Your task to perform on an android device: Add razer blade to the cart on newegg.com, then select checkout. Image 0: 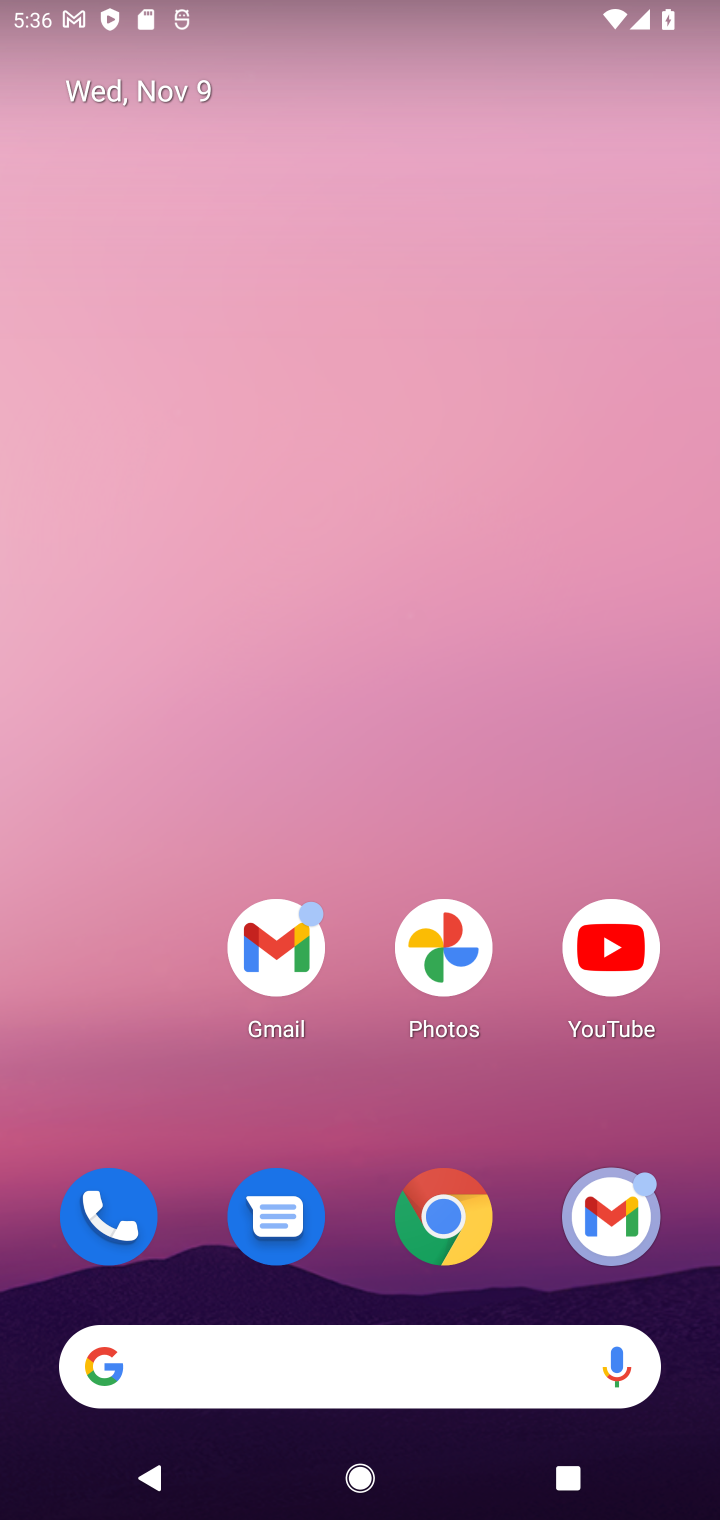
Step 0: drag from (366, 1123) to (430, 55)
Your task to perform on an android device: Add razer blade to the cart on newegg.com, then select checkout. Image 1: 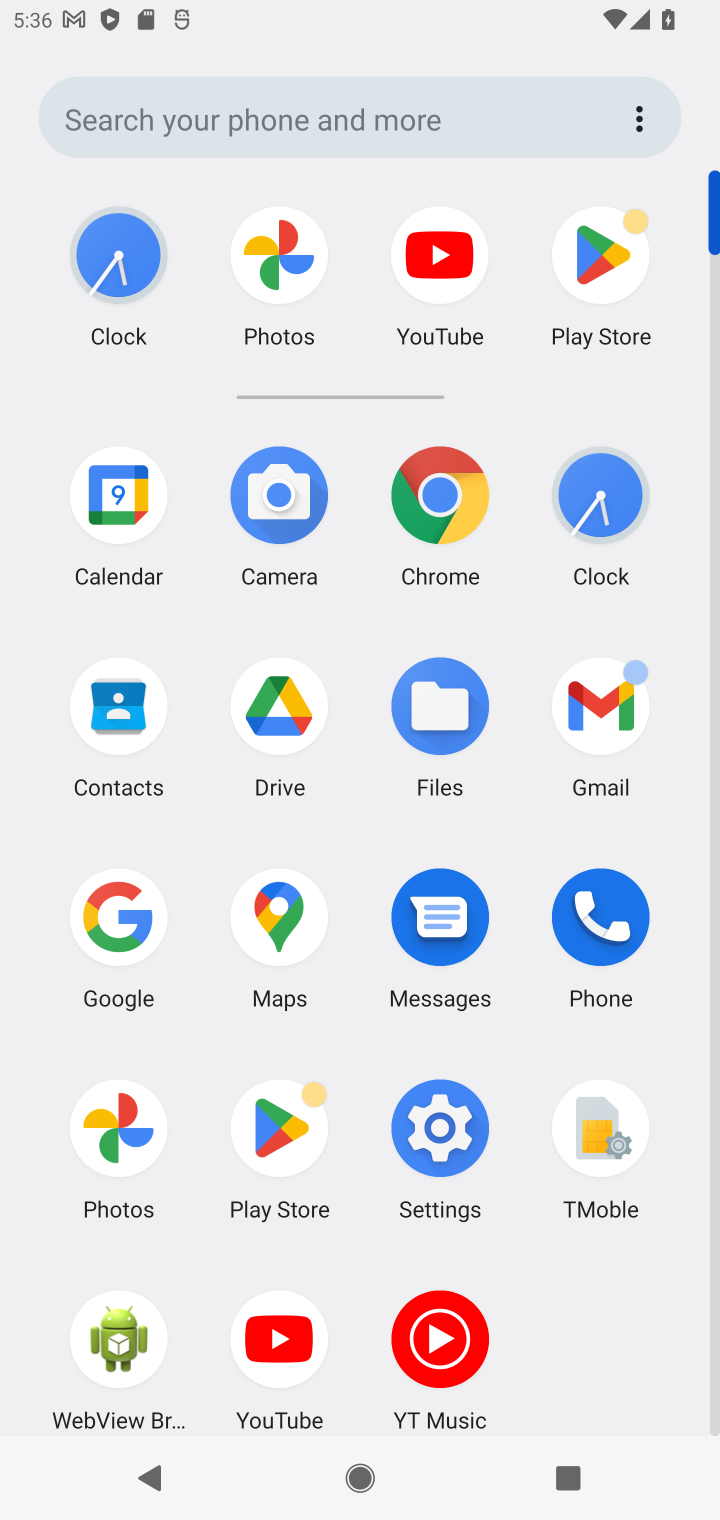
Step 1: click (431, 500)
Your task to perform on an android device: Add razer blade to the cart on newegg.com, then select checkout. Image 2: 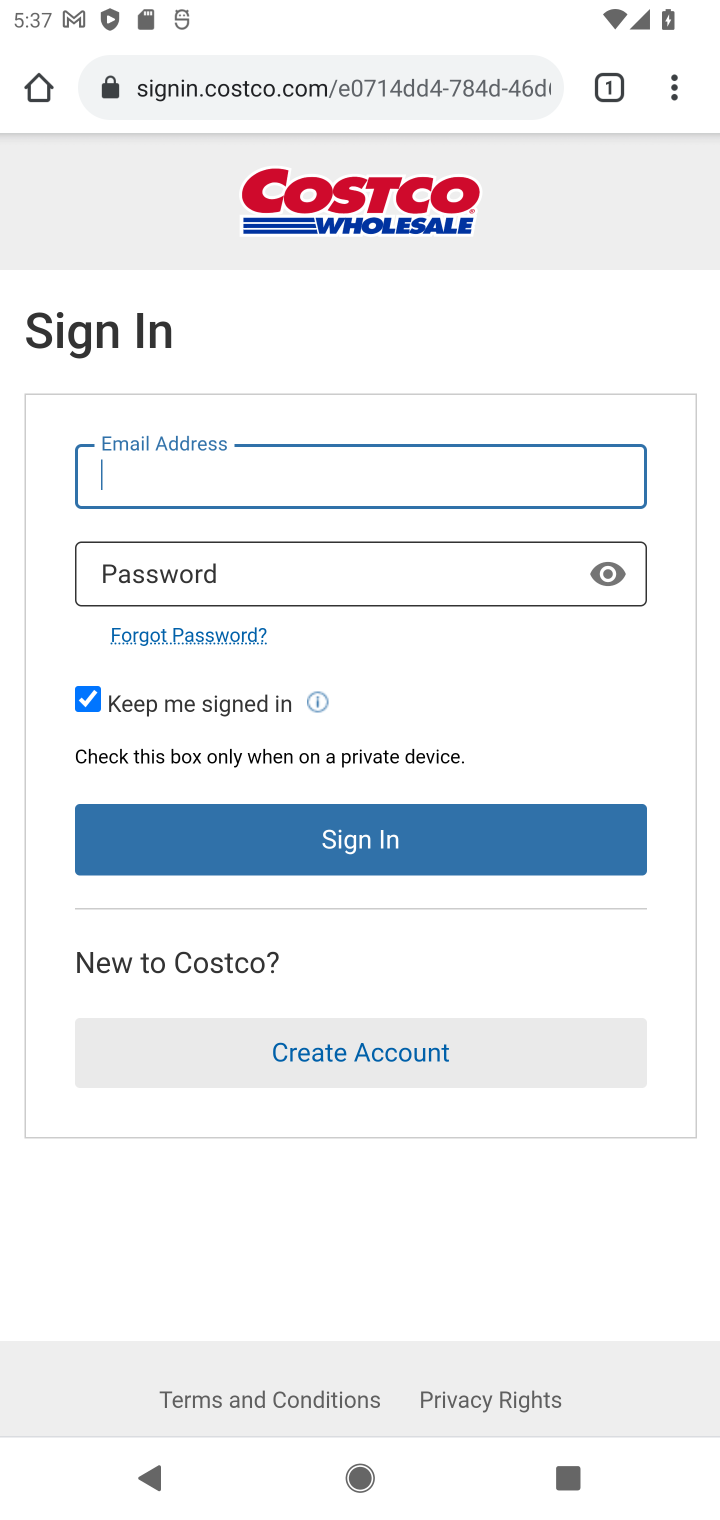
Step 2: click (420, 82)
Your task to perform on an android device: Add razer blade to the cart on newegg.com, then select checkout. Image 3: 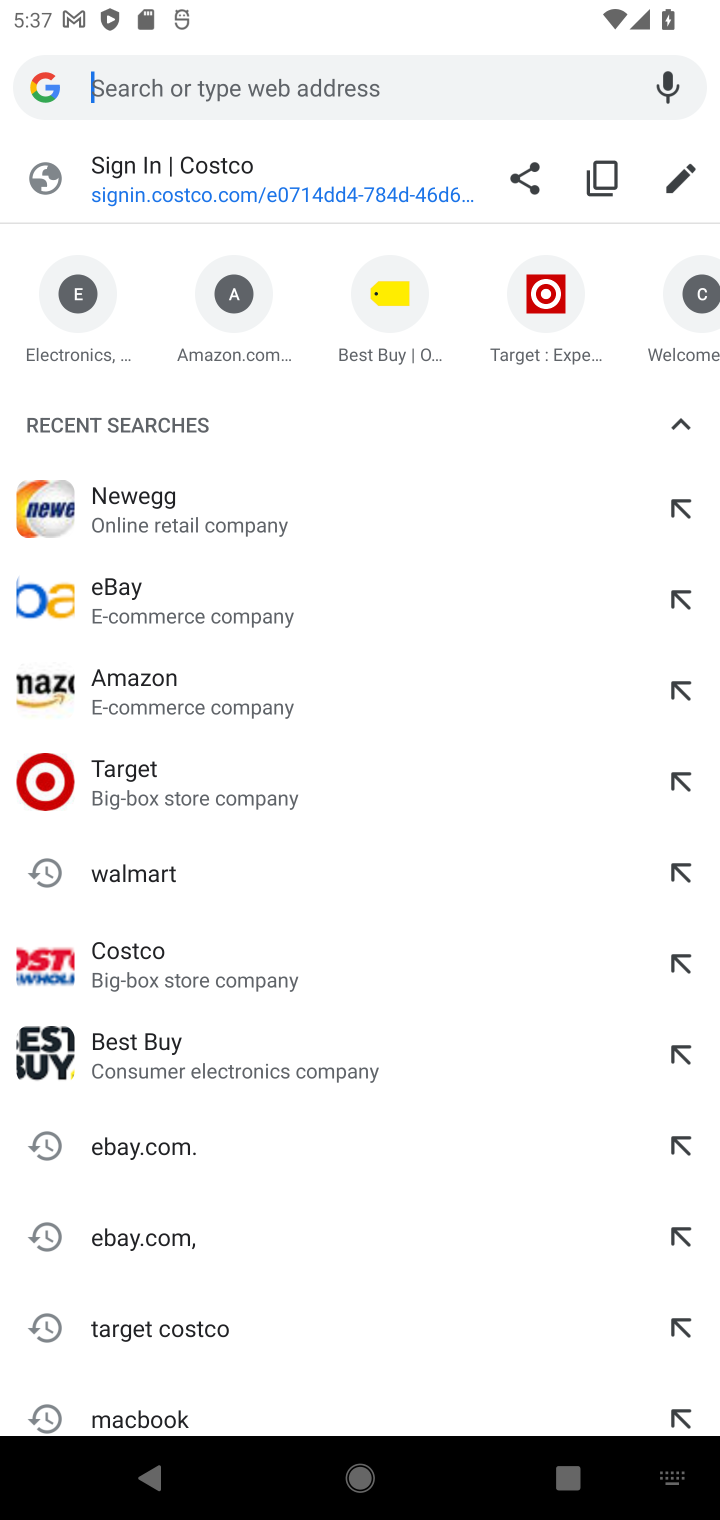
Step 3: type "newegg.com"
Your task to perform on an android device: Add razer blade to the cart on newegg.com, then select checkout. Image 4: 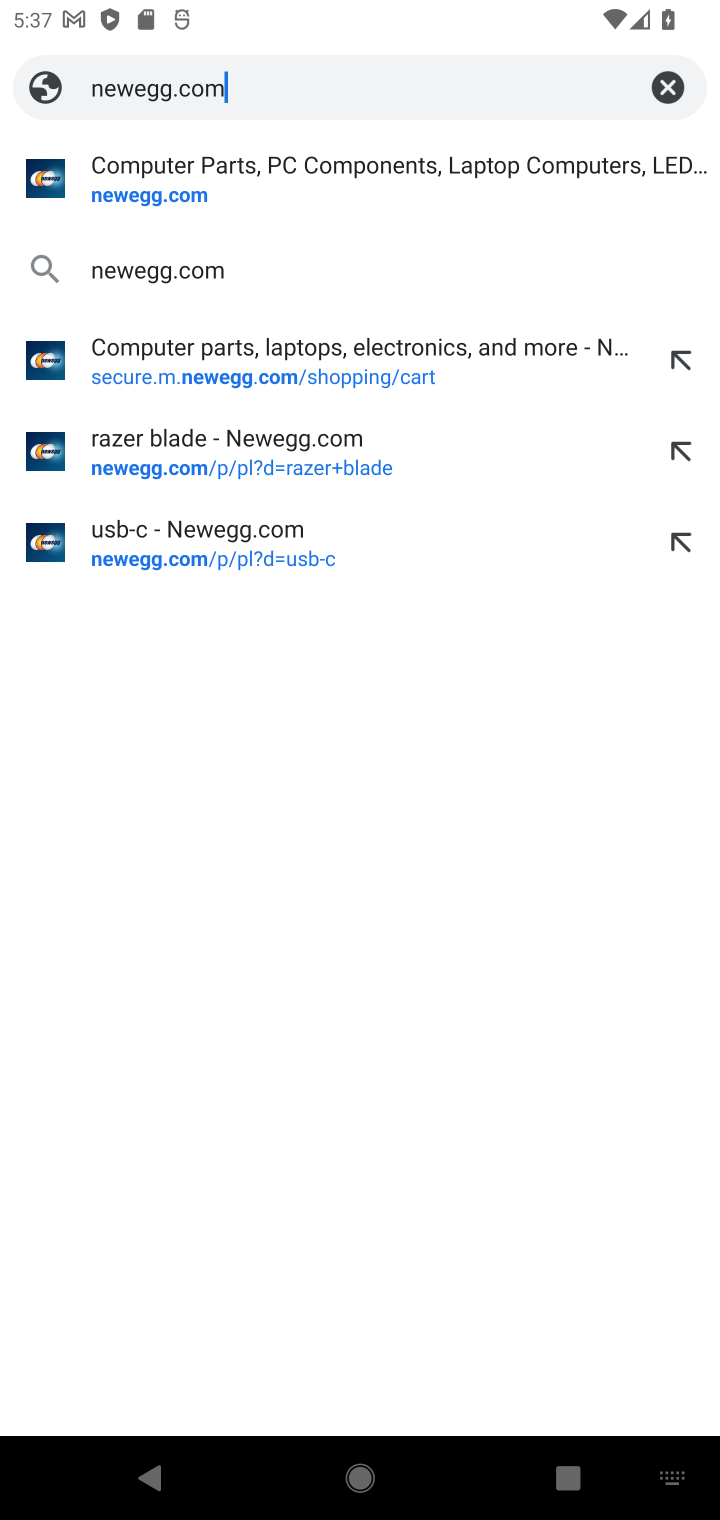
Step 4: press enter
Your task to perform on an android device: Add razer blade to the cart on newegg.com, then select checkout. Image 5: 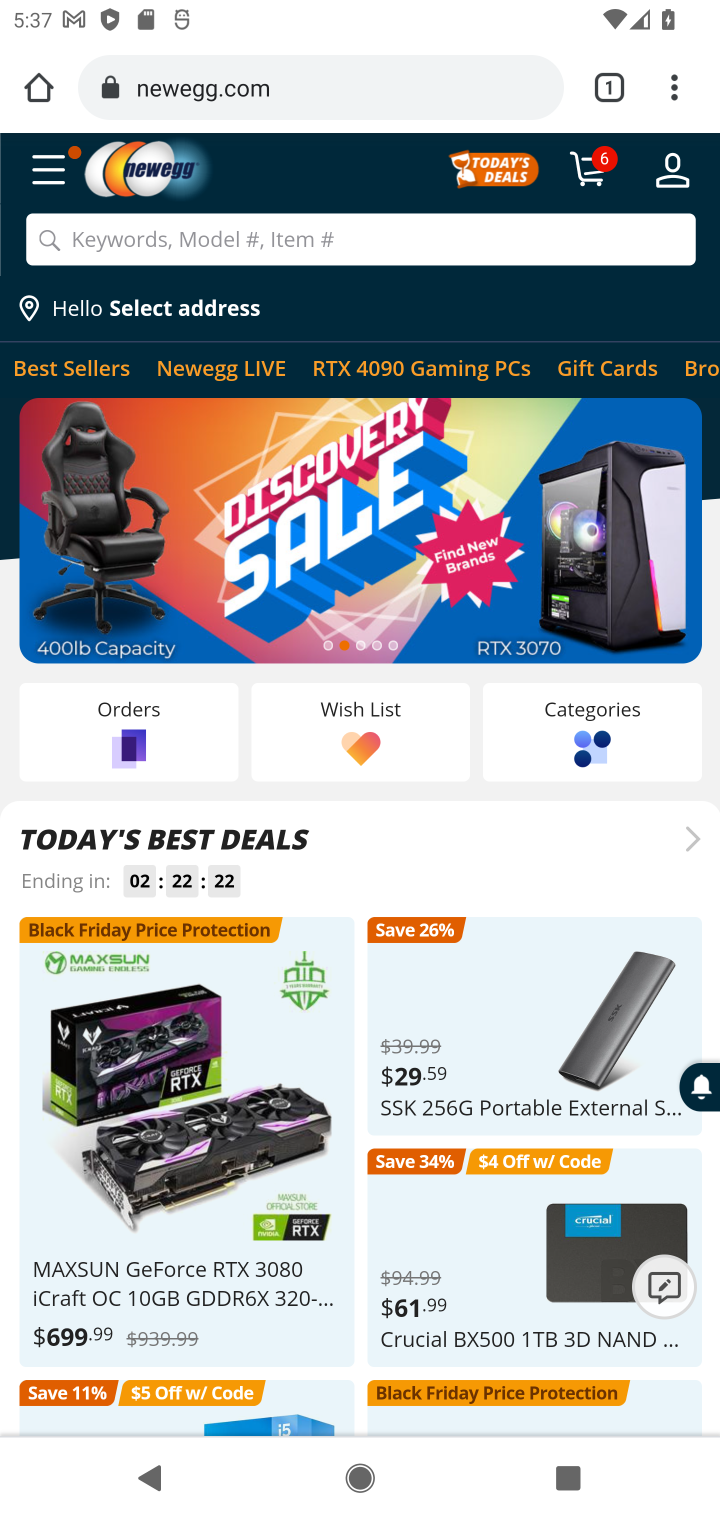
Step 5: click (248, 249)
Your task to perform on an android device: Add razer blade to the cart on newegg.com, then select checkout. Image 6: 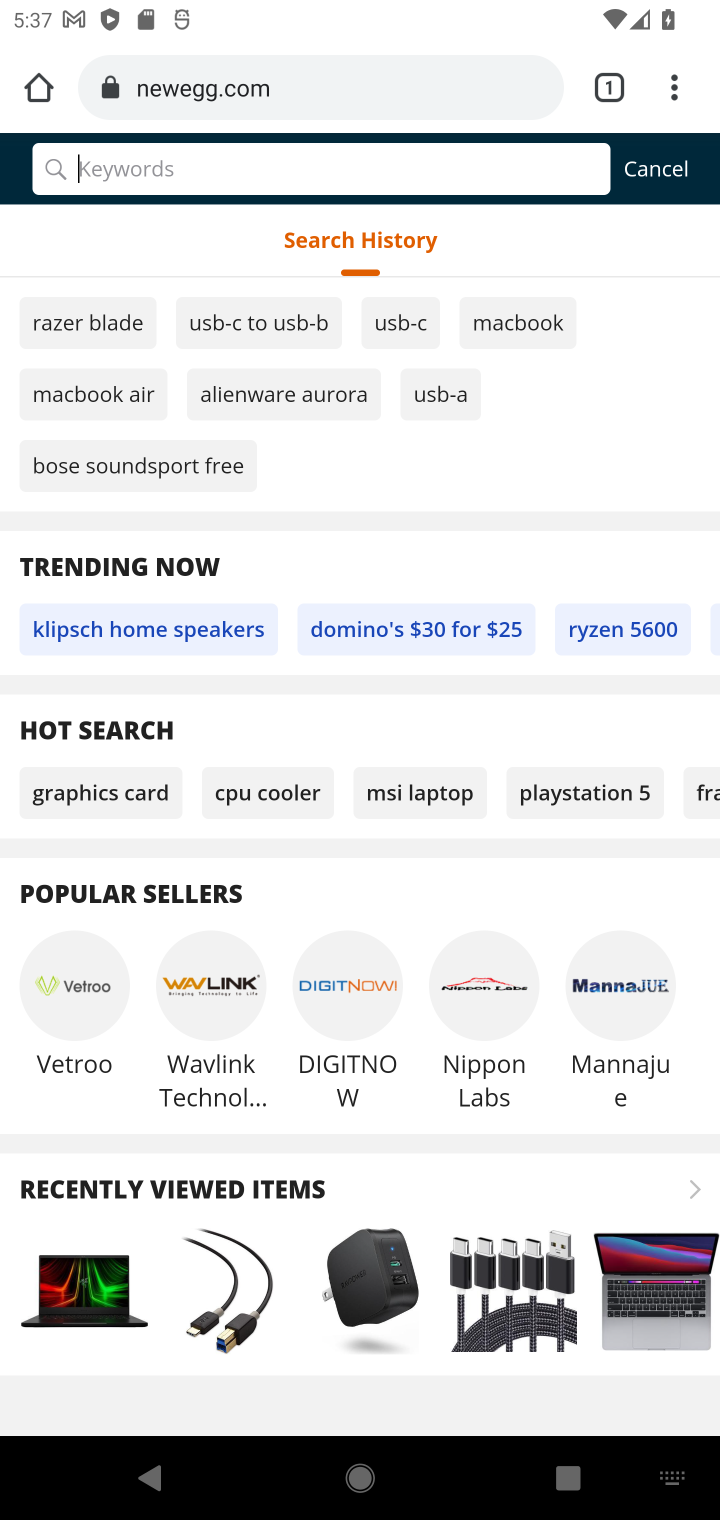
Step 6: type "razer blade"
Your task to perform on an android device: Add razer blade to the cart on newegg.com, then select checkout. Image 7: 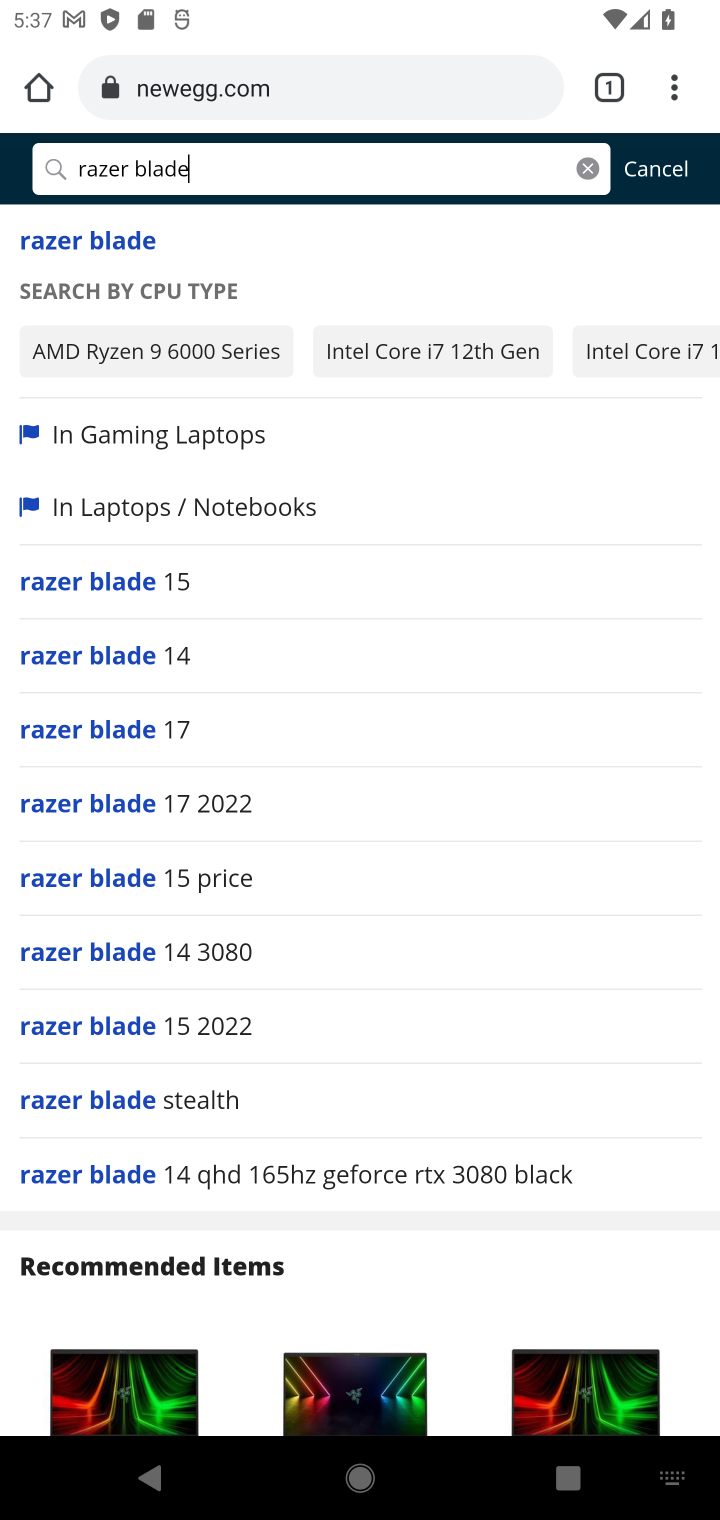
Step 7: press enter
Your task to perform on an android device: Add razer blade to the cart on newegg.com, then select checkout. Image 8: 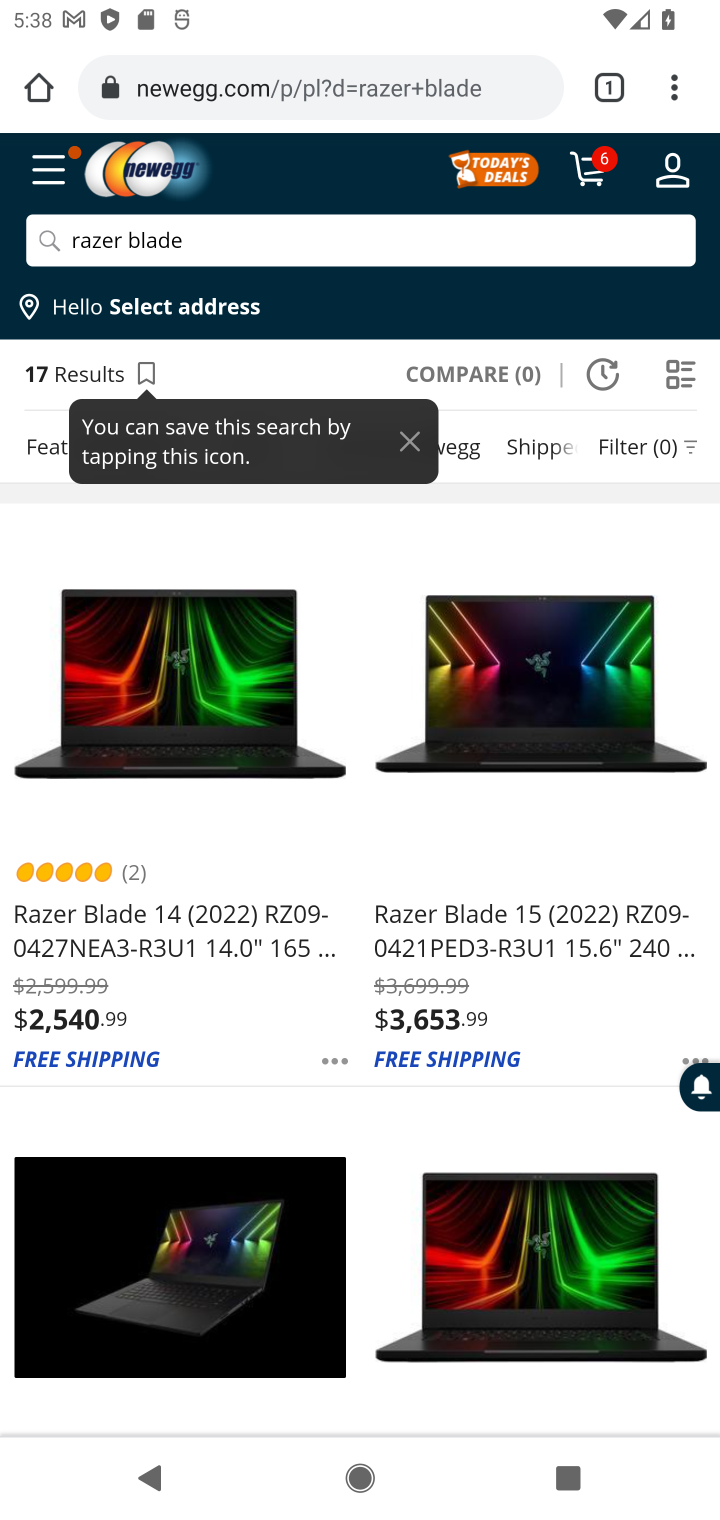
Step 8: click (224, 917)
Your task to perform on an android device: Add razer blade to the cart on newegg.com, then select checkout. Image 9: 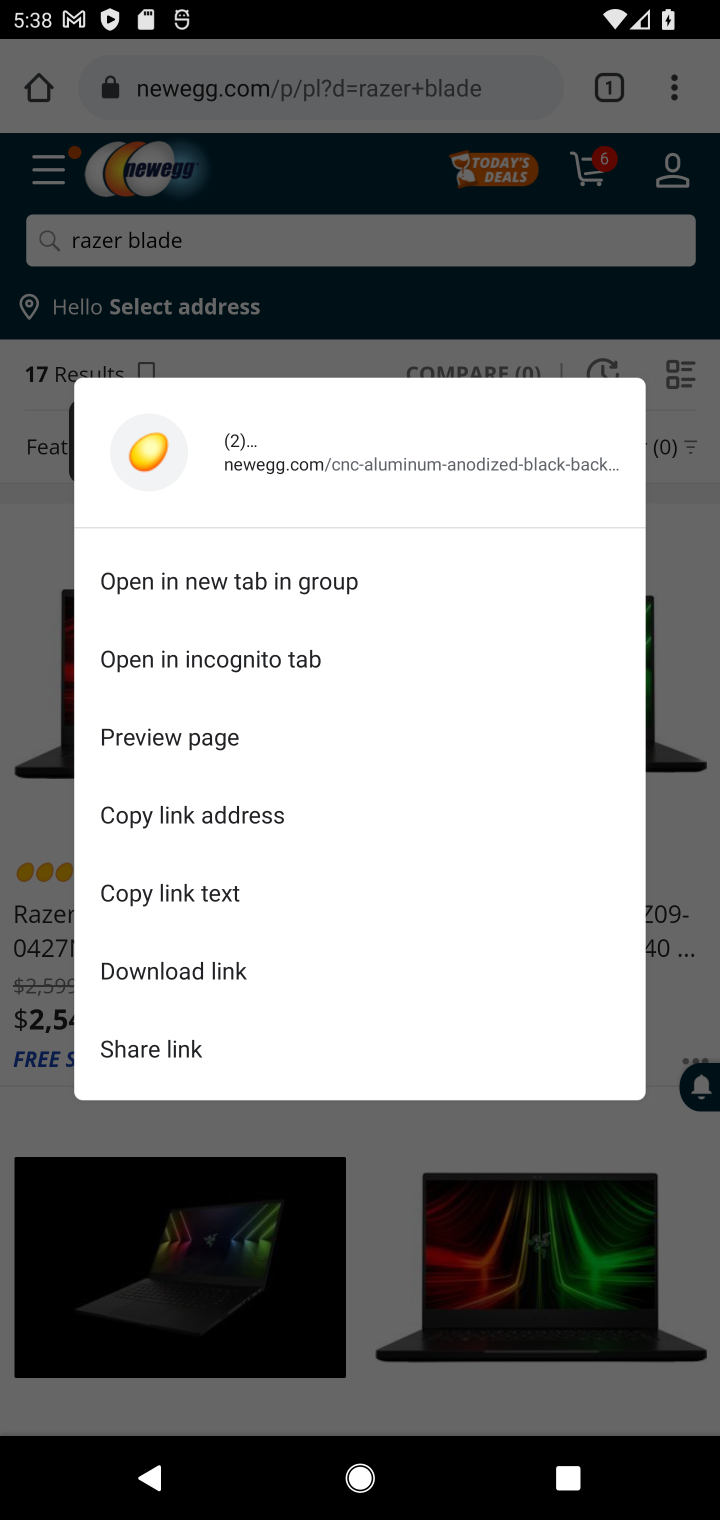
Step 9: click (11, 873)
Your task to perform on an android device: Add razer blade to the cart on newegg.com, then select checkout. Image 10: 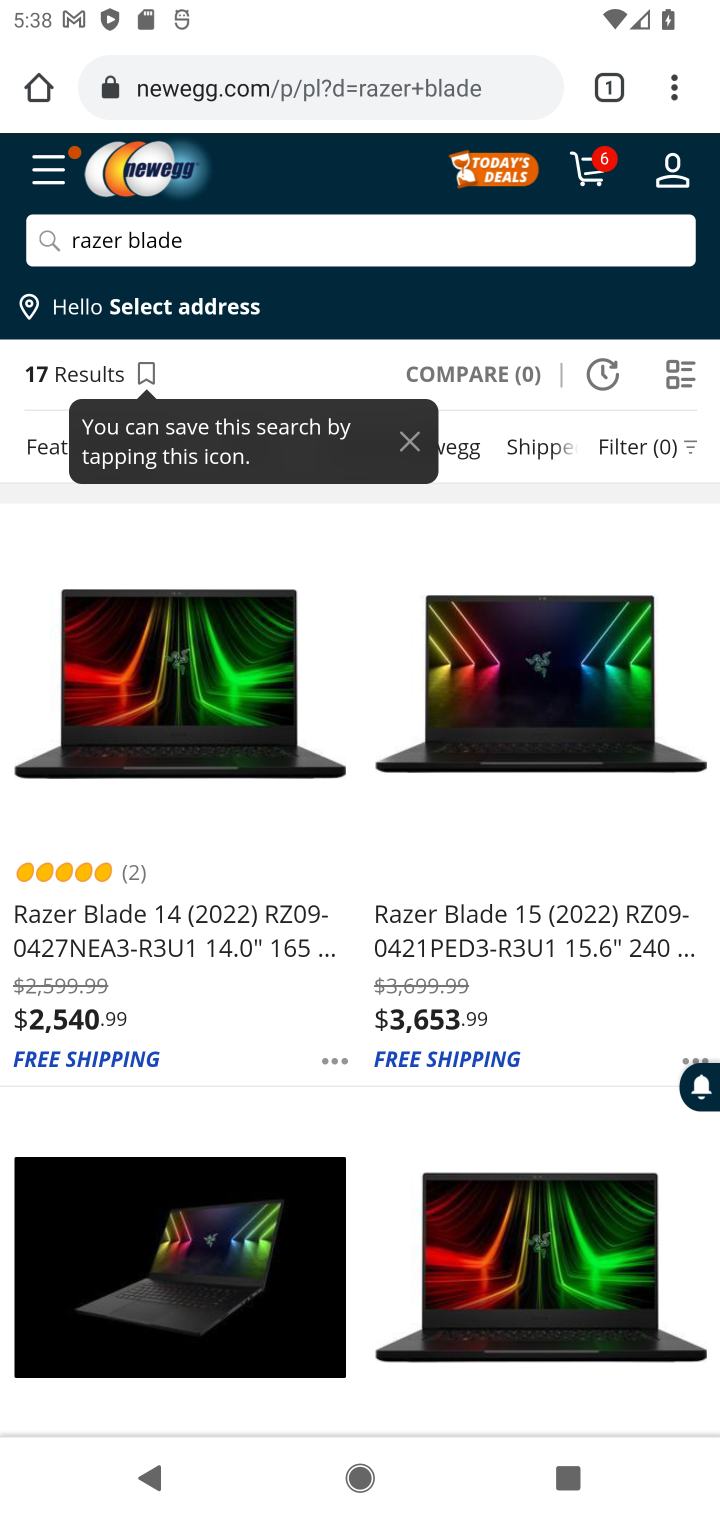
Step 10: click (95, 943)
Your task to perform on an android device: Add razer blade to the cart on newegg.com, then select checkout. Image 11: 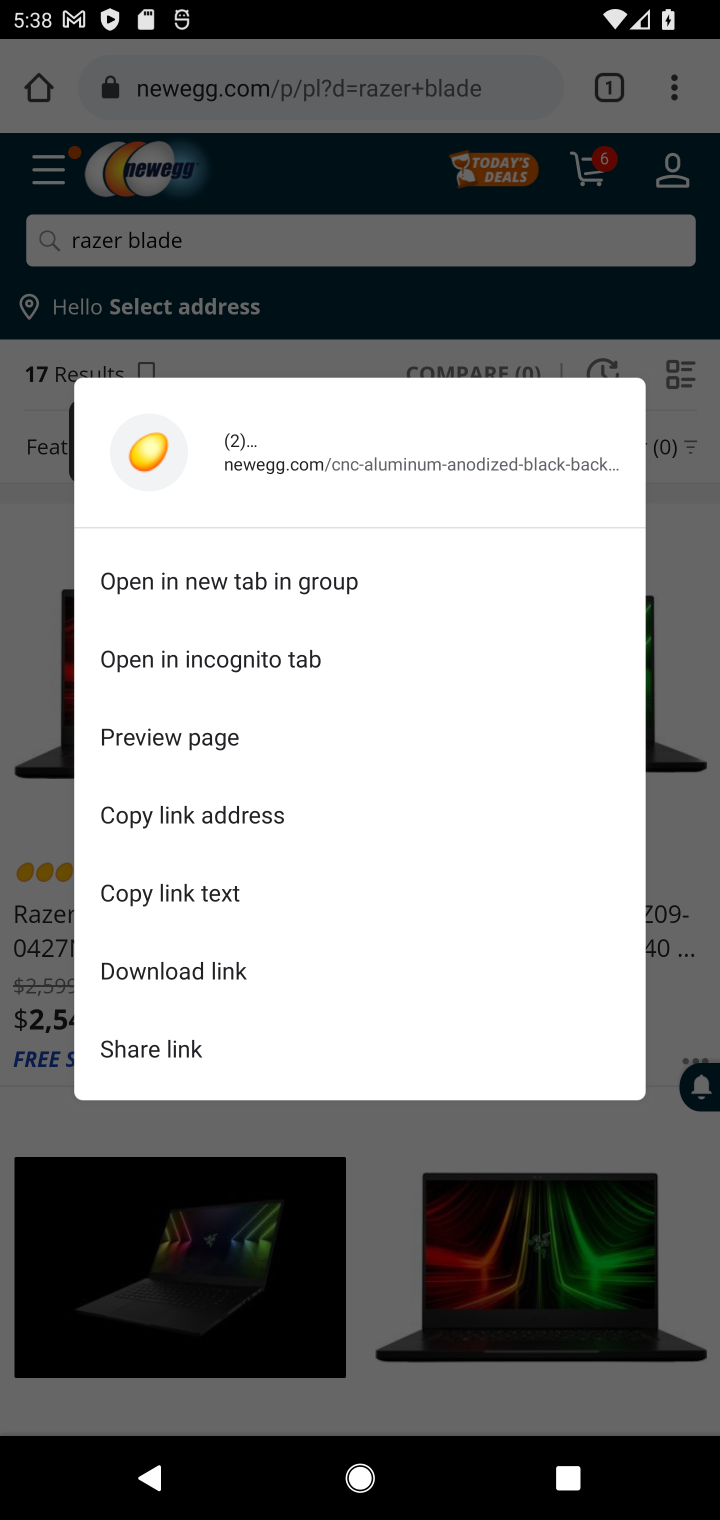
Step 11: click (27, 934)
Your task to perform on an android device: Add razer blade to the cart on newegg.com, then select checkout. Image 12: 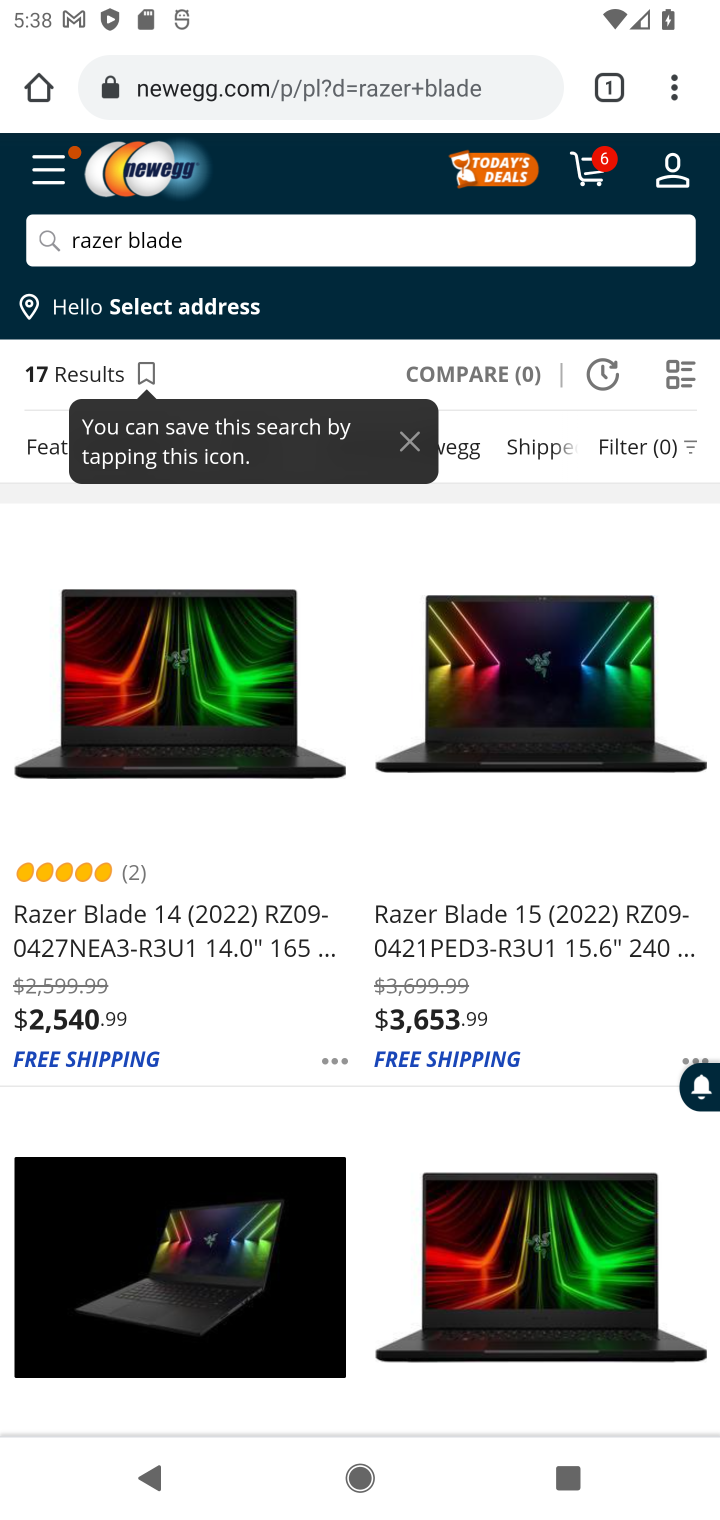
Step 12: click (132, 945)
Your task to perform on an android device: Add razer blade to the cart on newegg.com, then select checkout. Image 13: 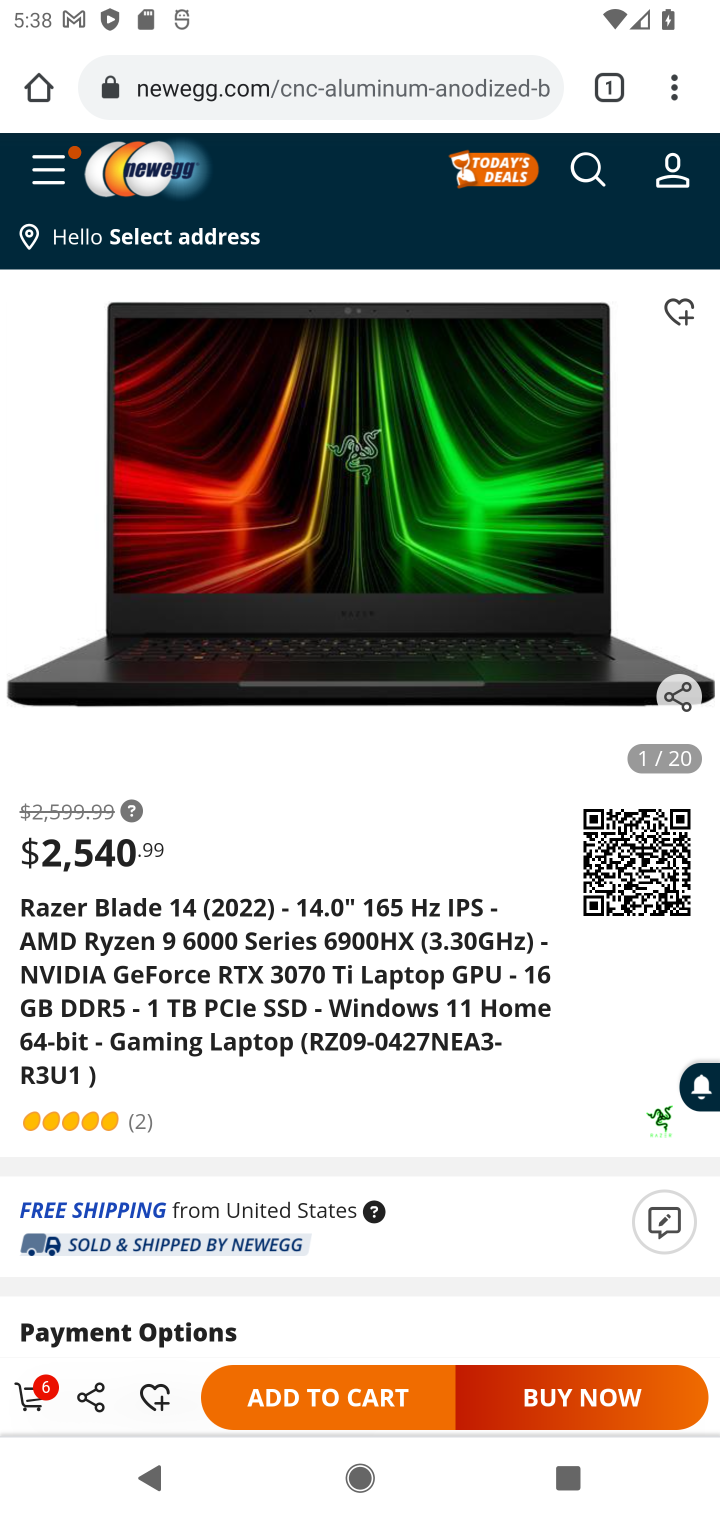
Step 13: click (350, 1406)
Your task to perform on an android device: Add razer blade to the cart on newegg.com, then select checkout. Image 14: 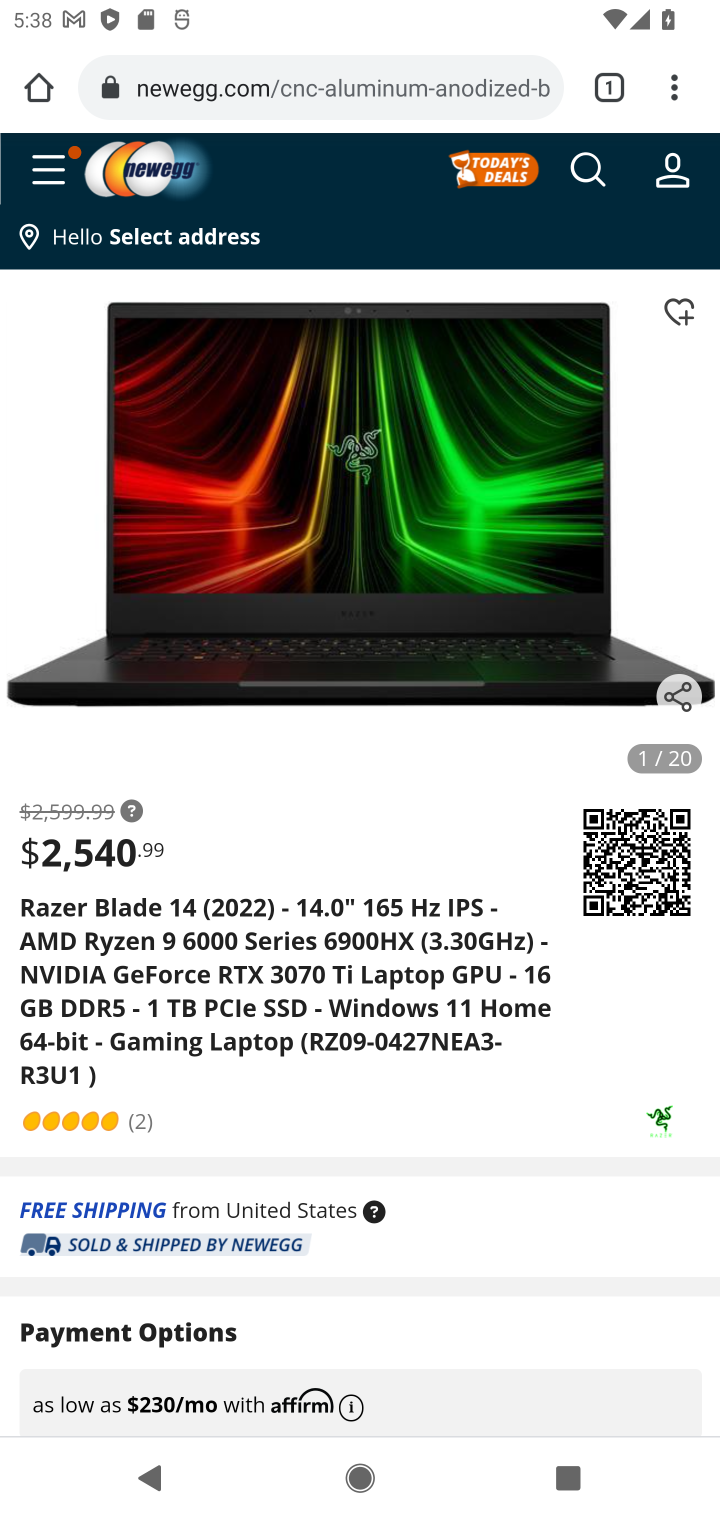
Step 14: drag from (505, 1309) to (405, 772)
Your task to perform on an android device: Add razer blade to the cart on newegg.com, then select checkout. Image 15: 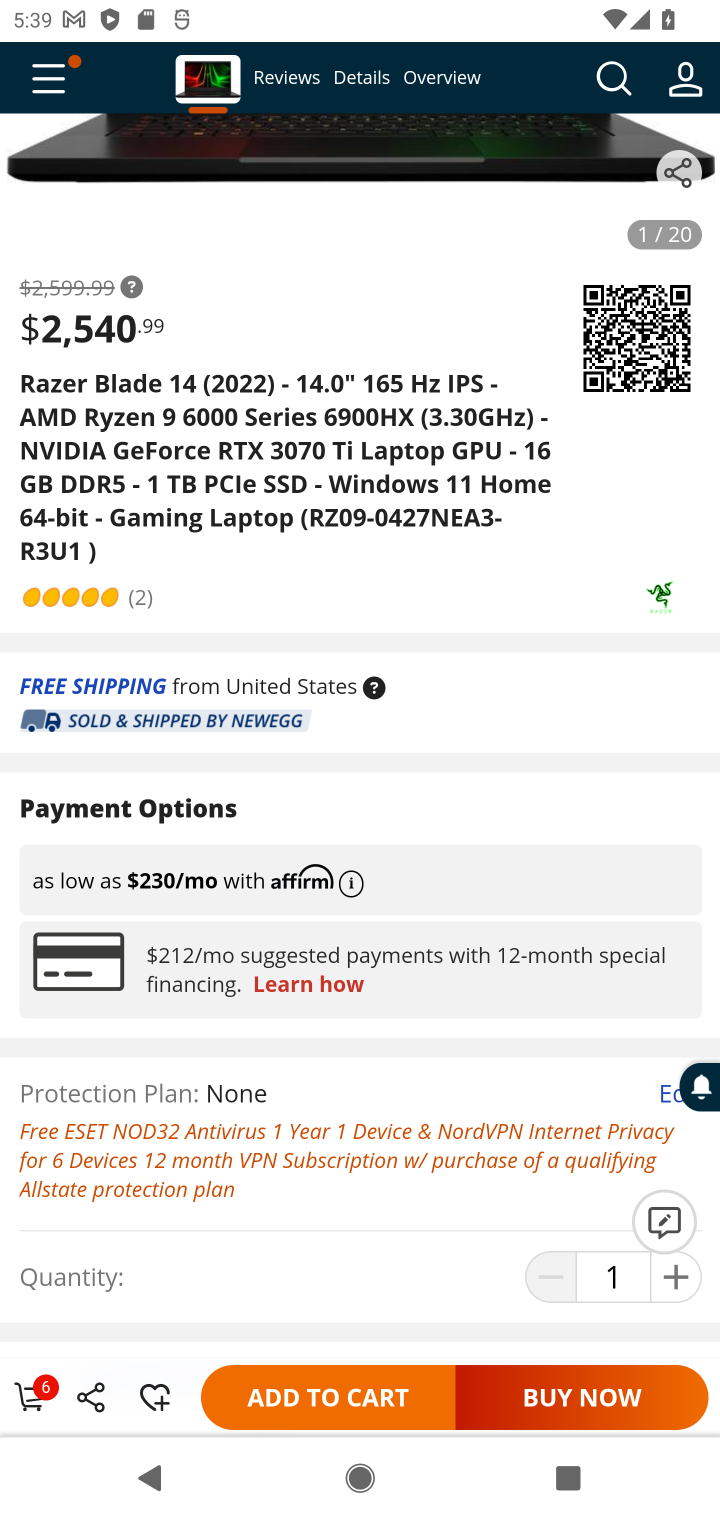
Step 15: click (346, 1403)
Your task to perform on an android device: Add razer blade to the cart on newegg.com, then select checkout. Image 16: 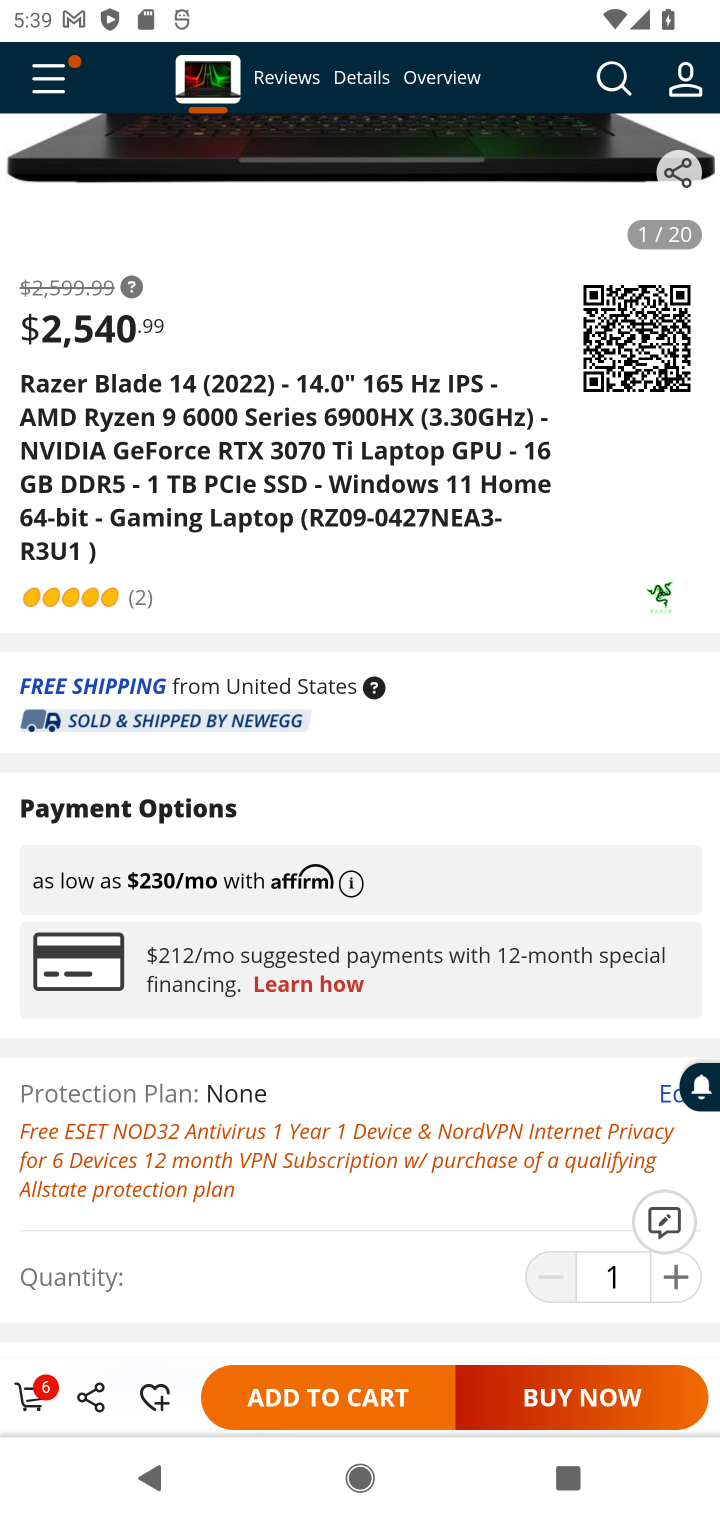
Step 16: click (274, 1398)
Your task to perform on an android device: Add razer blade to the cart on newegg.com, then select checkout. Image 17: 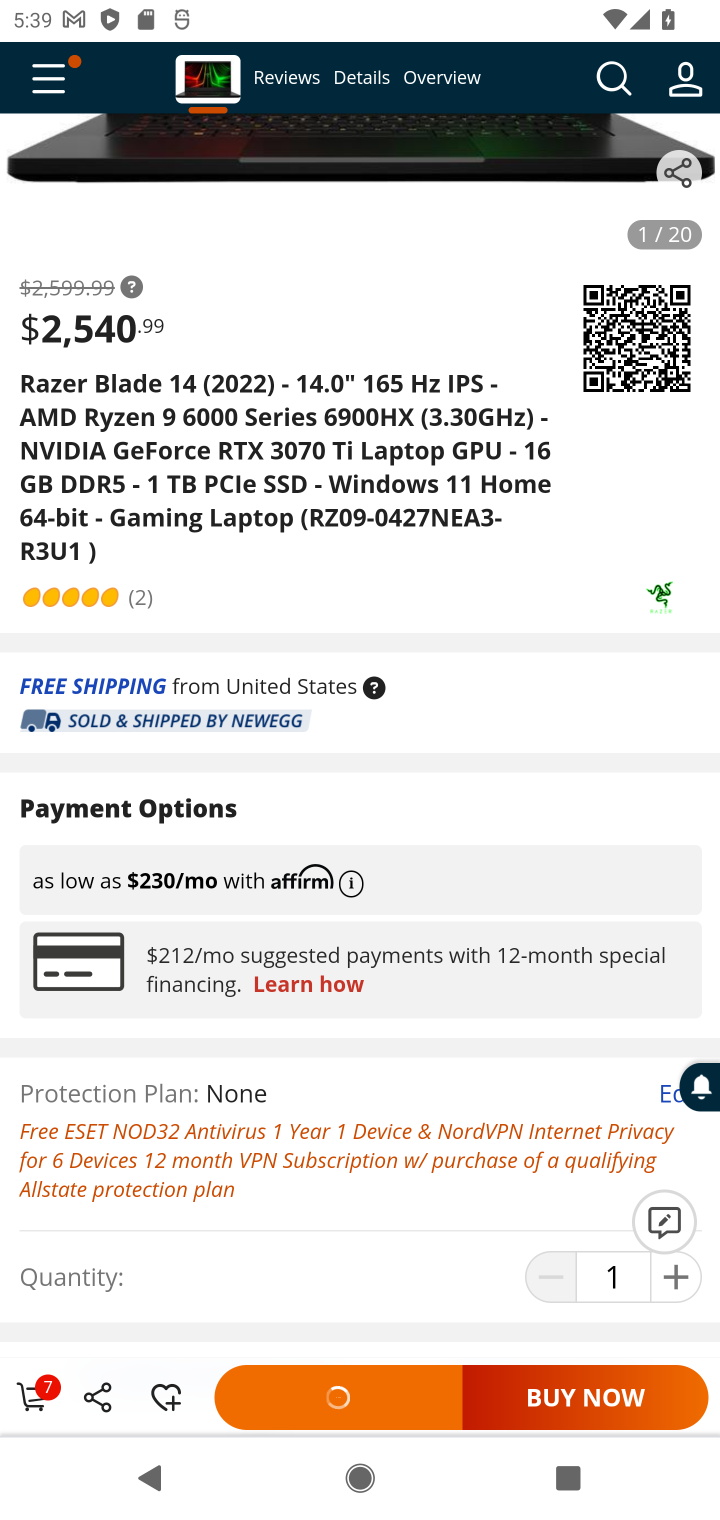
Step 17: click (334, 1388)
Your task to perform on an android device: Add razer blade to the cart on newegg.com, then select checkout. Image 18: 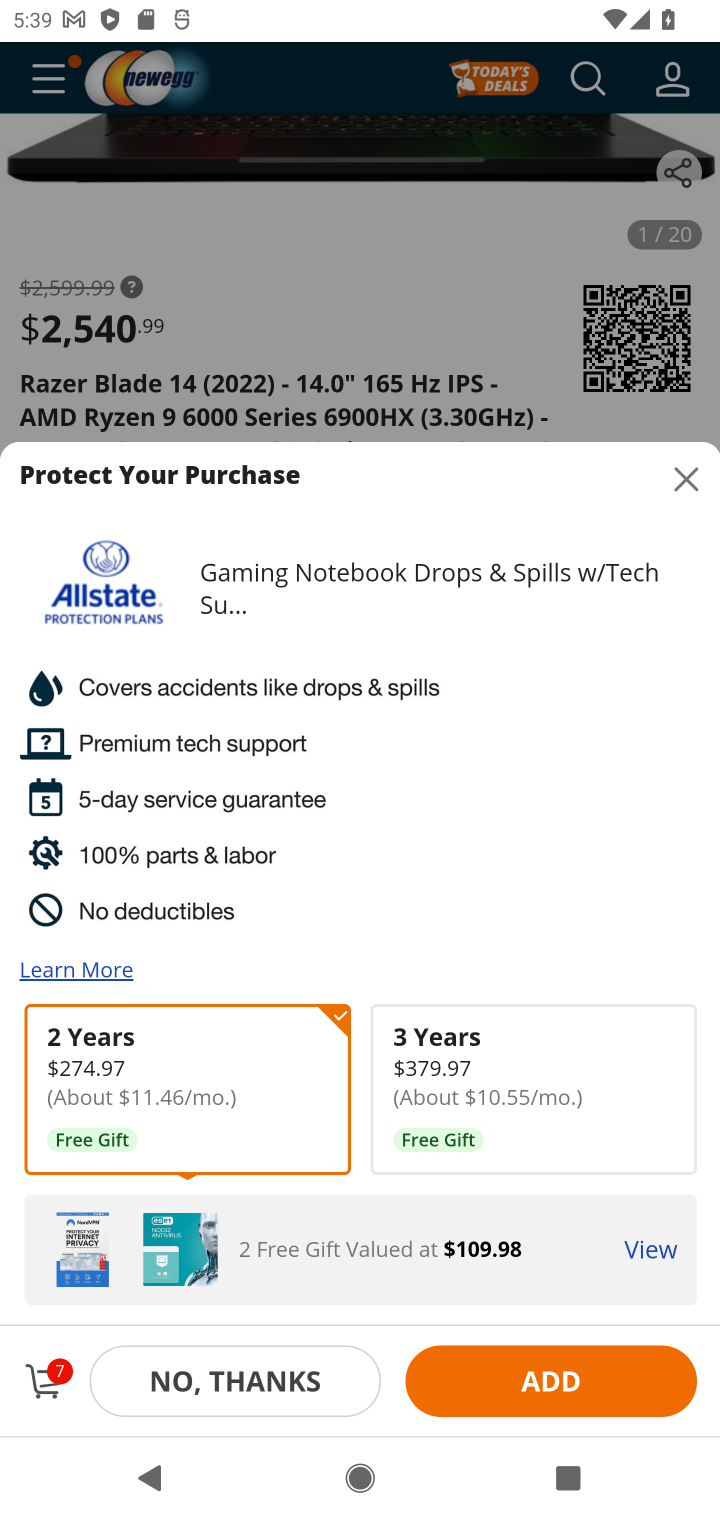
Step 18: click (42, 1390)
Your task to perform on an android device: Add razer blade to the cart on newegg.com, then select checkout. Image 19: 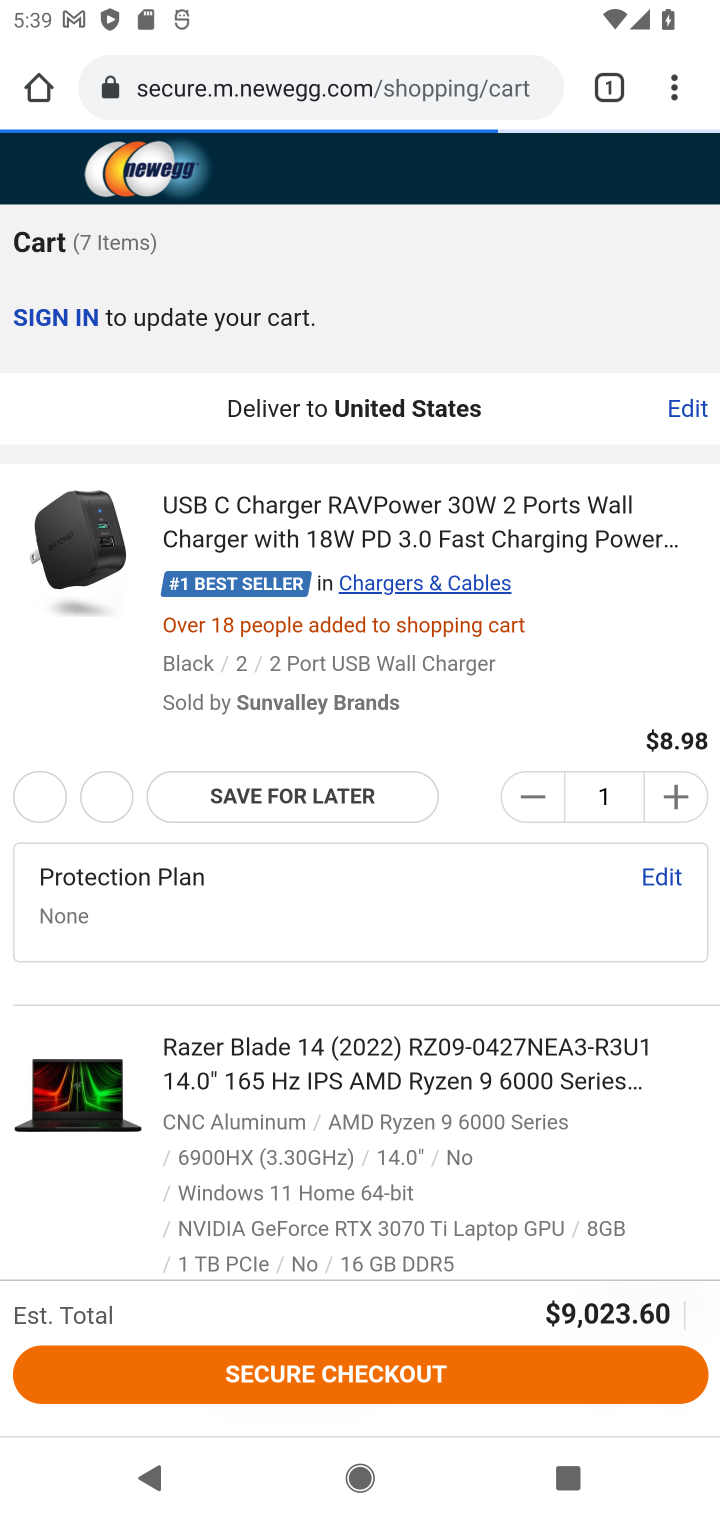
Step 19: click (42, 1390)
Your task to perform on an android device: Add razer blade to the cart on newegg.com, then select checkout. Image 20: 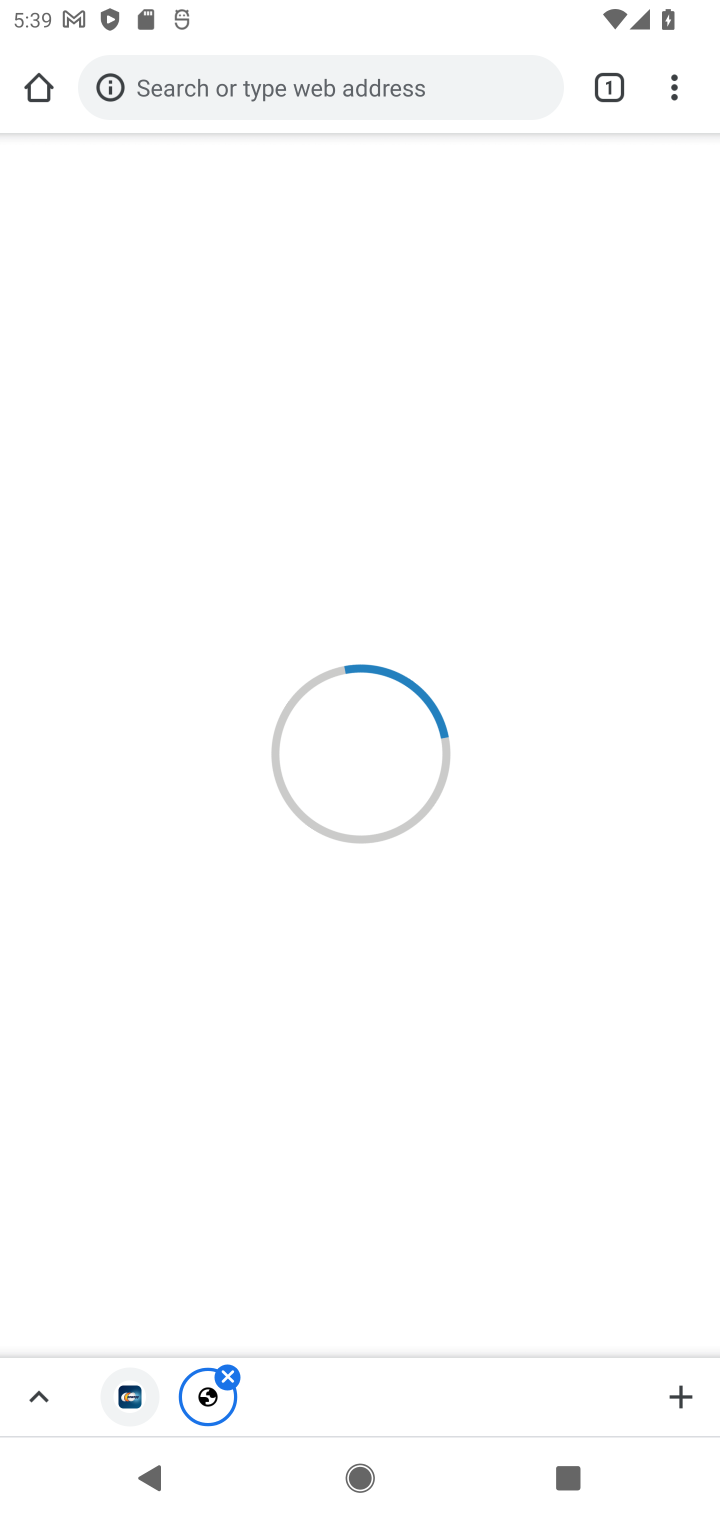
Step 20: press back button
Your task to perform on an android device: Add razer blade to the cart on newegg.com, then select checkout. Image 21: 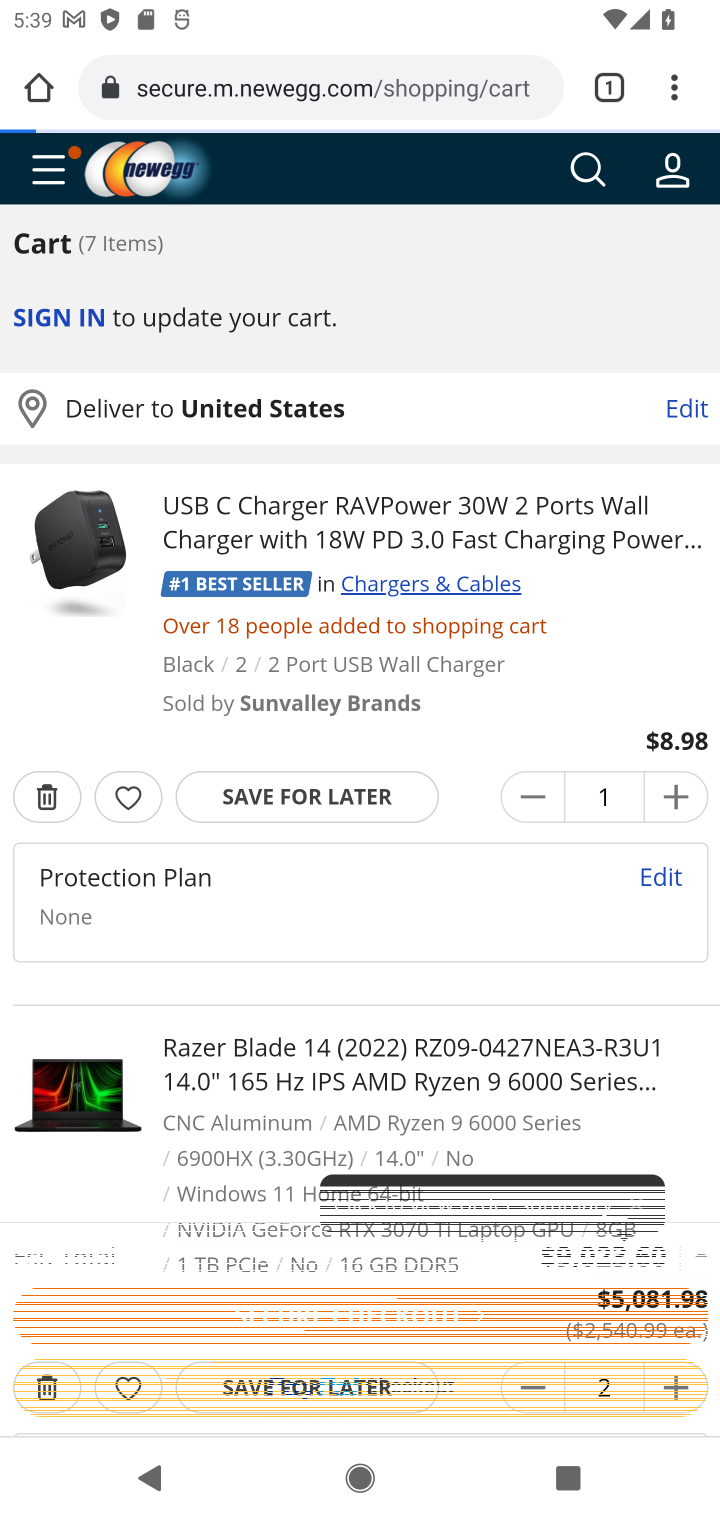
Step 21: click (373, 1325)
Your task to perform on an android device: Add razer blade to the cart on newegg.com, then select checkout. Image 22: 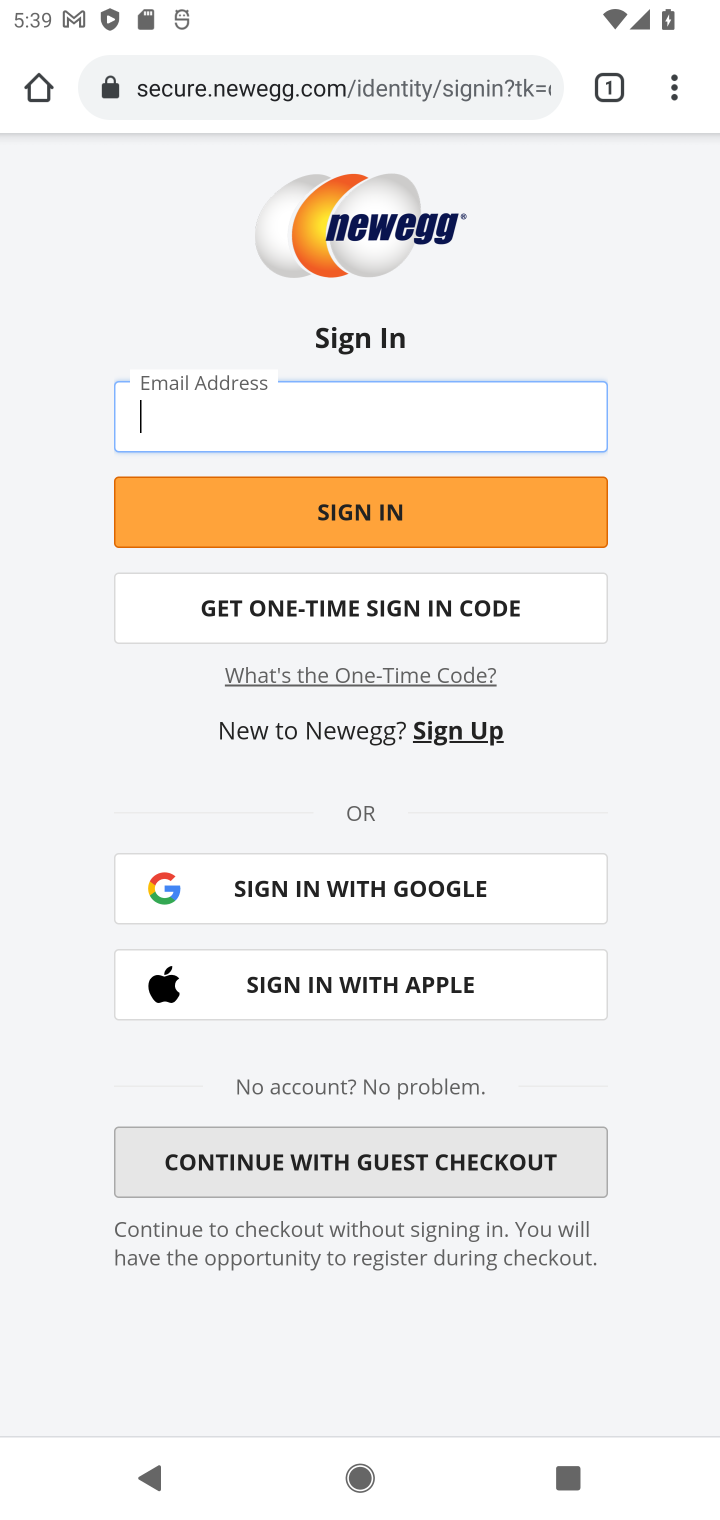
Step 22: task complete